Your task to perform on an android device: Go to accessibility settings Image 0: 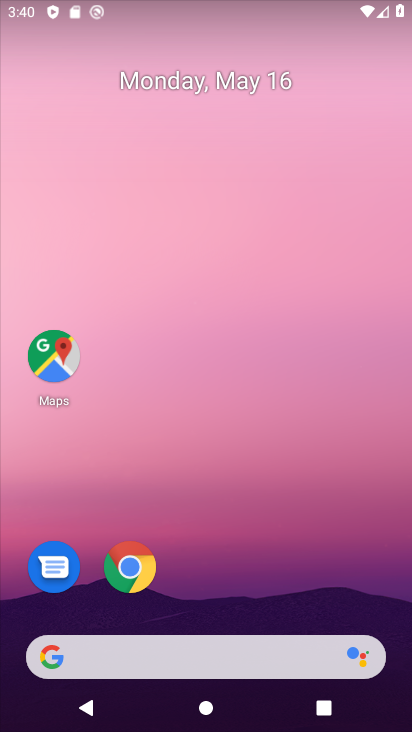
Step 0: drag from (278, 603) to (376, 47)
Your task to perform on an android device: Go to accessibility settings Image 1: 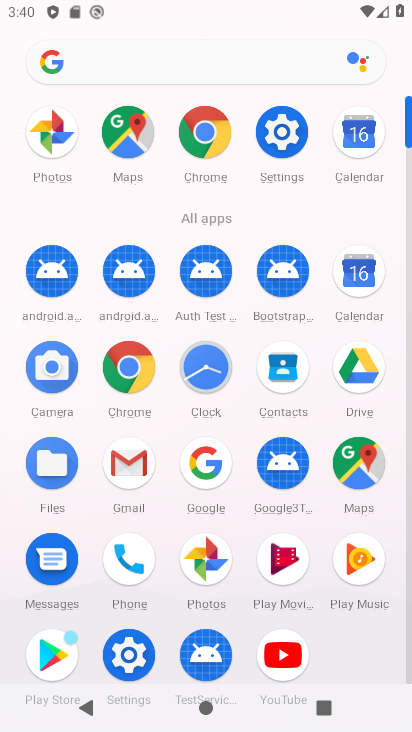
Step 1: click (281, 132)
Your task to perform on an android device: Go to accessibility settings Image 2: 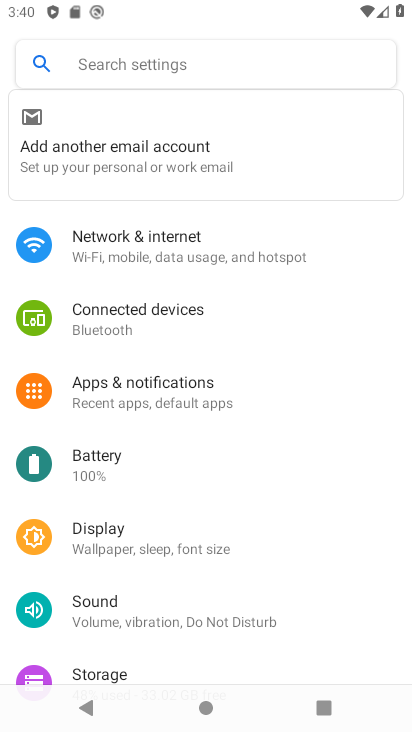
Step 2: drag from (290, 649) to (325, 154)
Your task to perform on an android device: Go to accessibility settings Image 3: 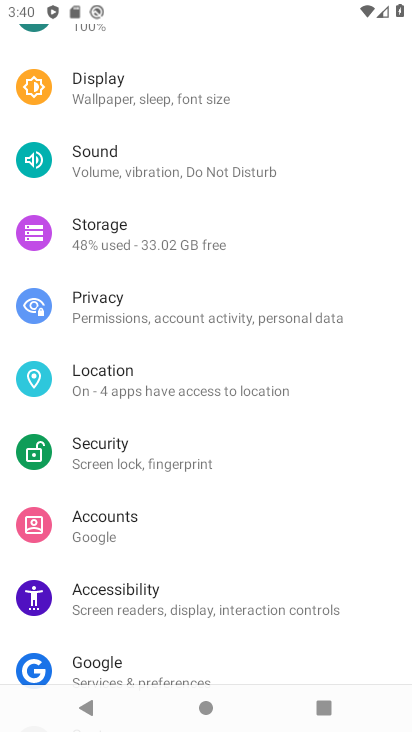
Step 3: click (210, 598)
Your task to perform on an android device: Go to accessibility settings Image 4: 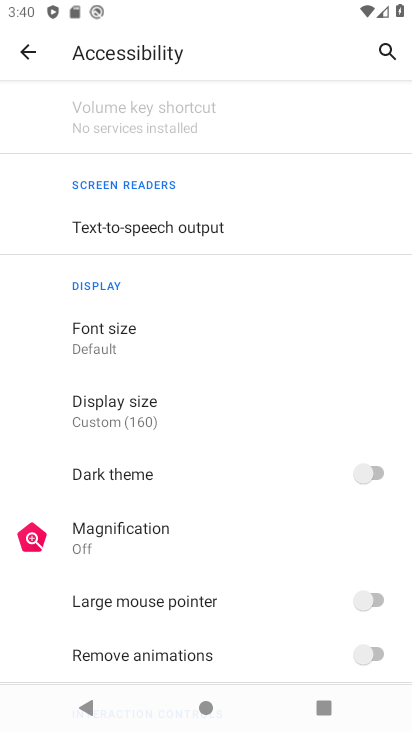
Step 4: task complete